Your task to perform on an android device: Turn on the flashlight Image 0: 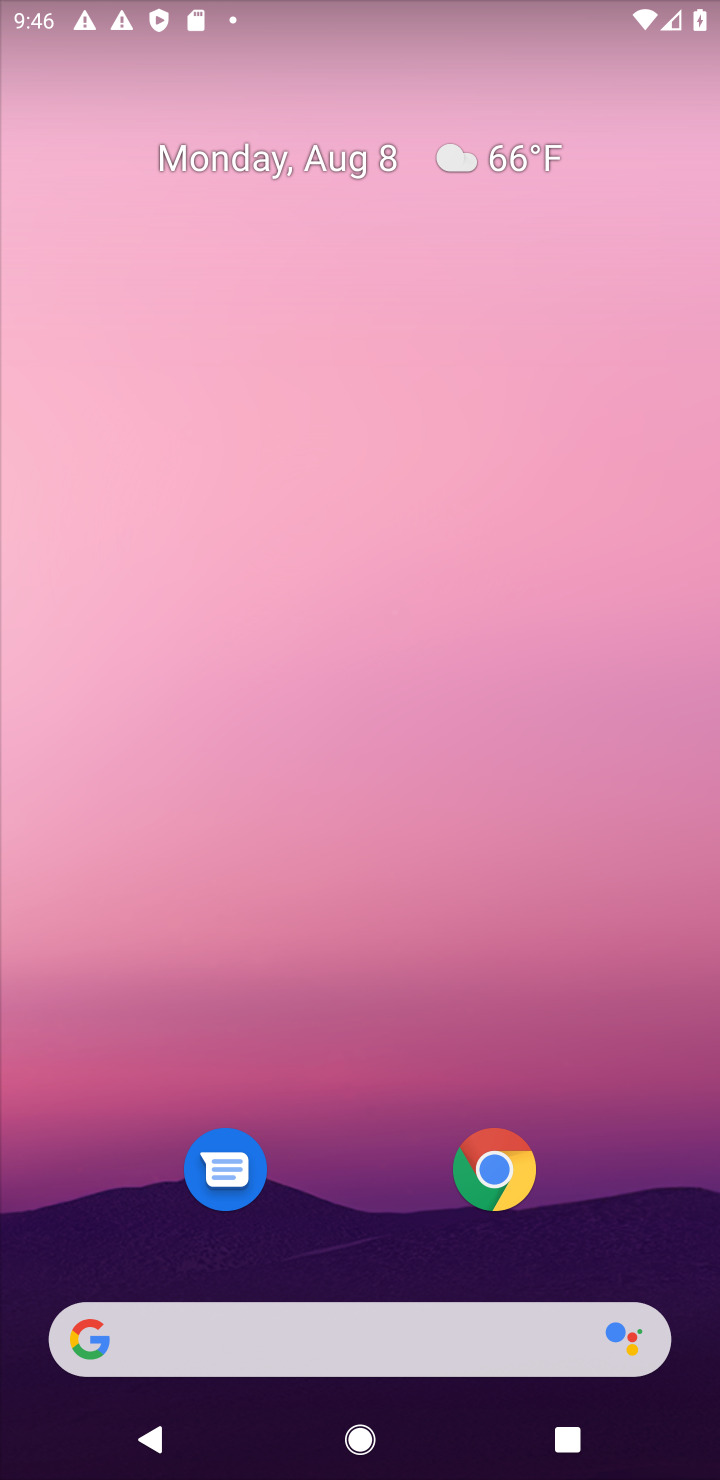
Step 0: drag from (354, 1159) to (496, 196)
Your task to perform on an android device: Turn on the flashlight Image 1: 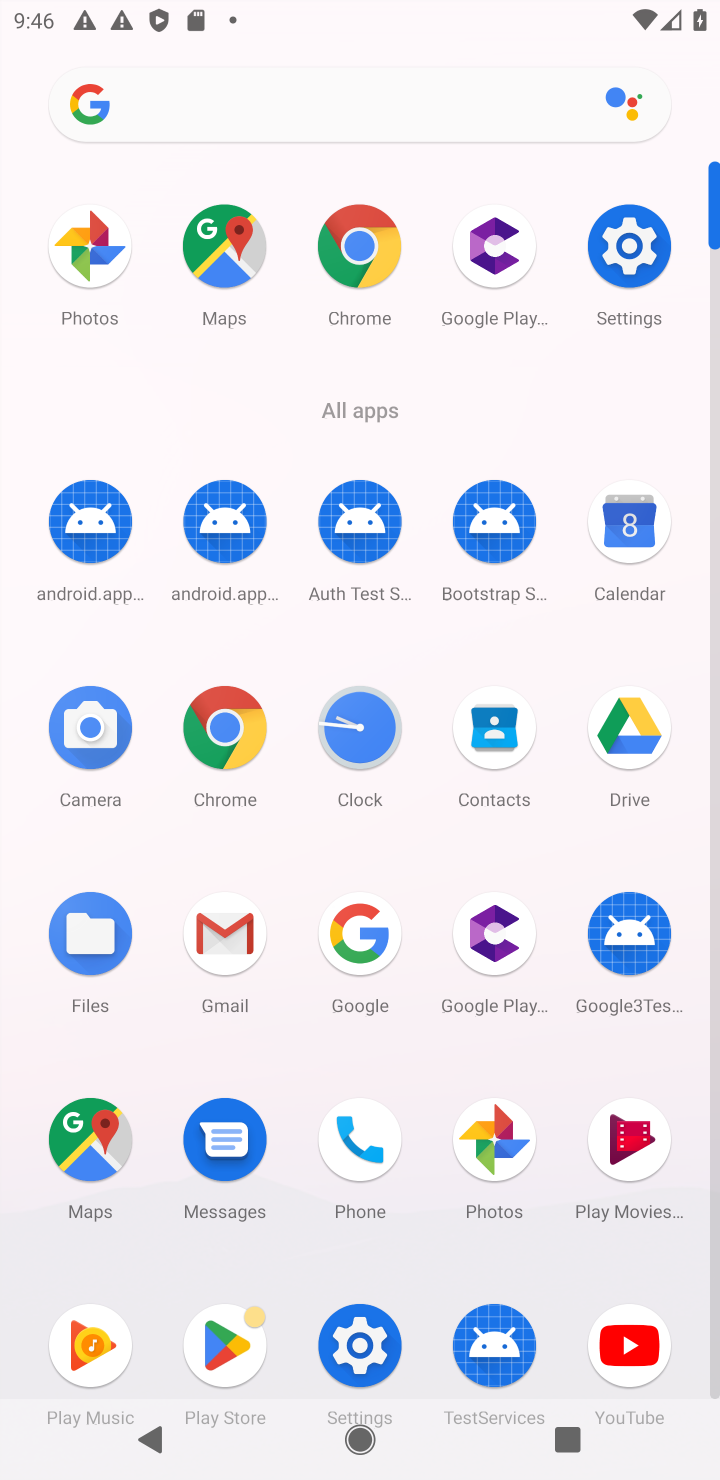
Step 1: click (630, 234)
Your task to perform on an android device: Turn on the flashlight Image 2: 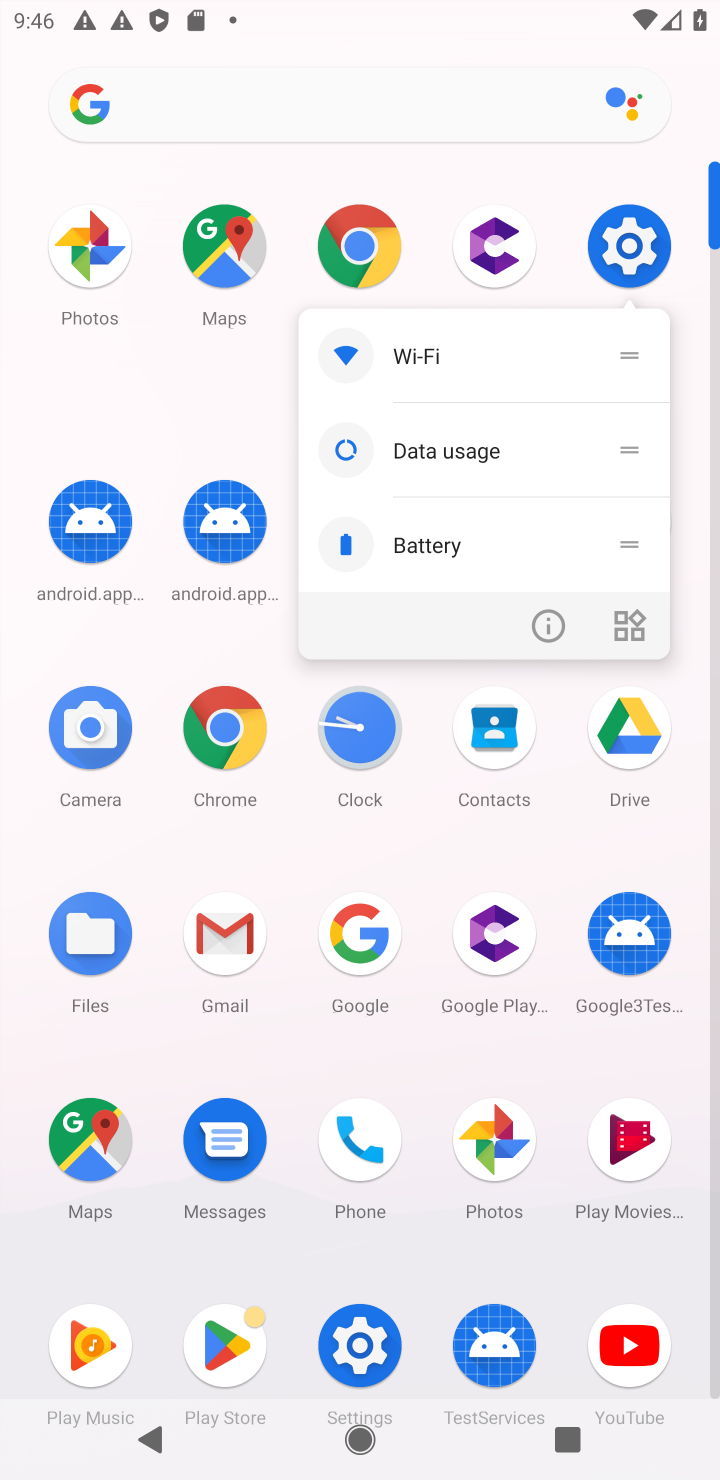
Step 2: click (630, 234)
Your task to perform on an android device: Turn on the flashlight Image 3: 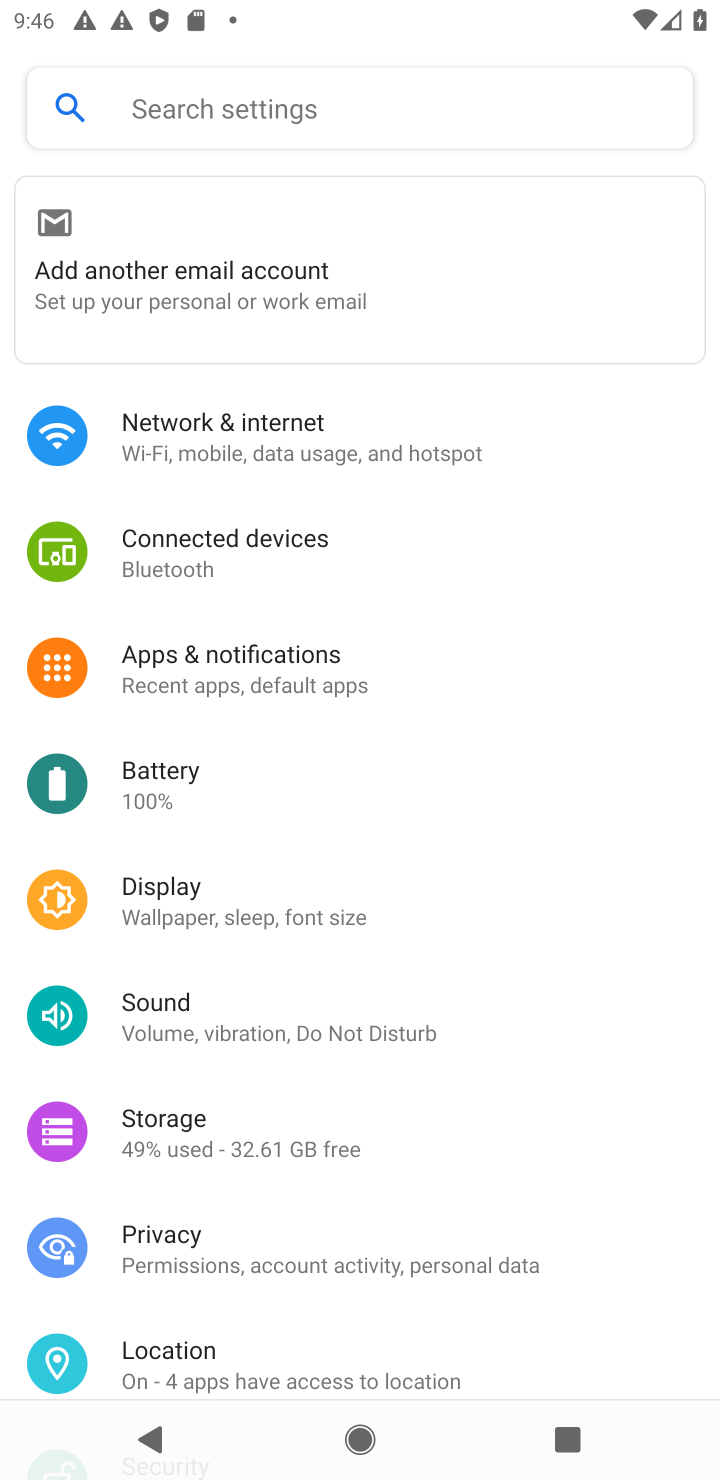
Step 3: click (298, 102)
Your task to perform on an android device: Turn on the flashlight Image 4: 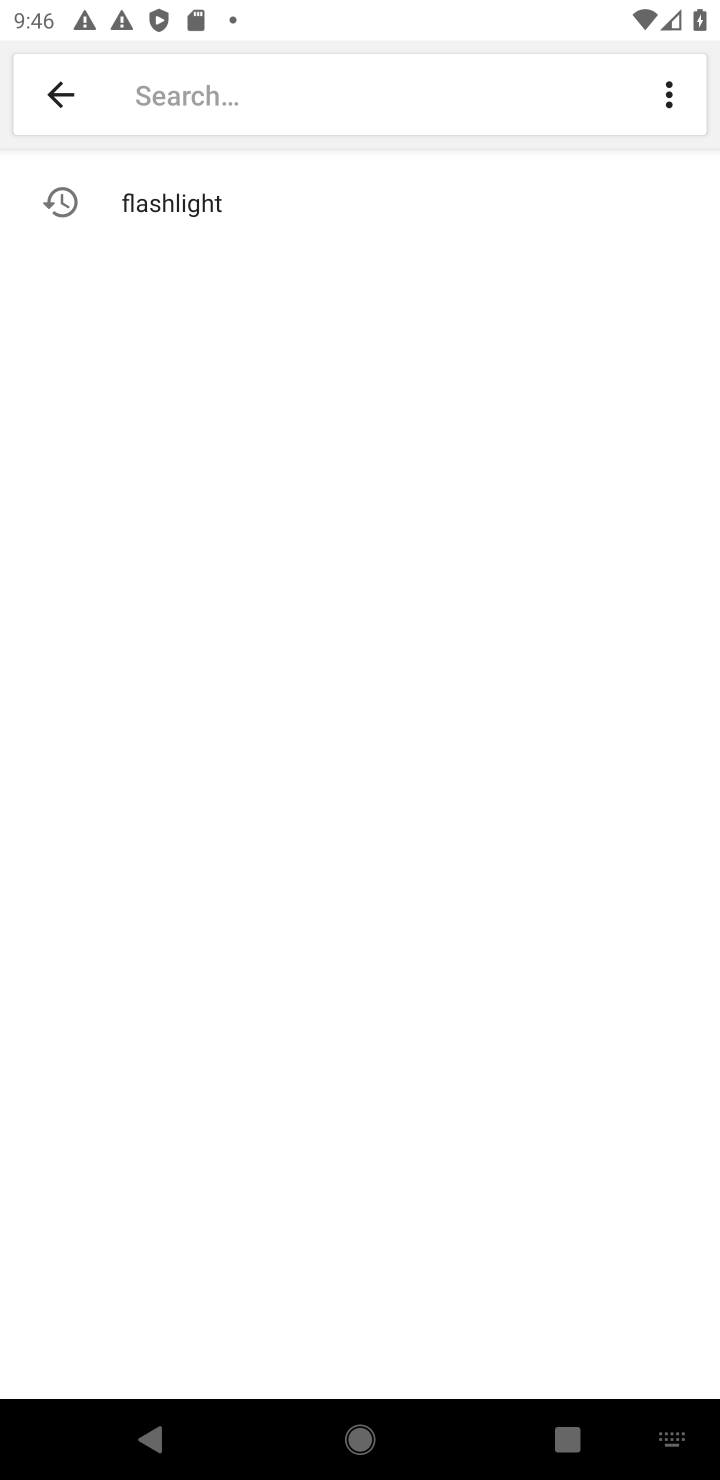
Step 4: type "flashlight"
Your task to perform on an android device: Turn on the flashlight Image 5: 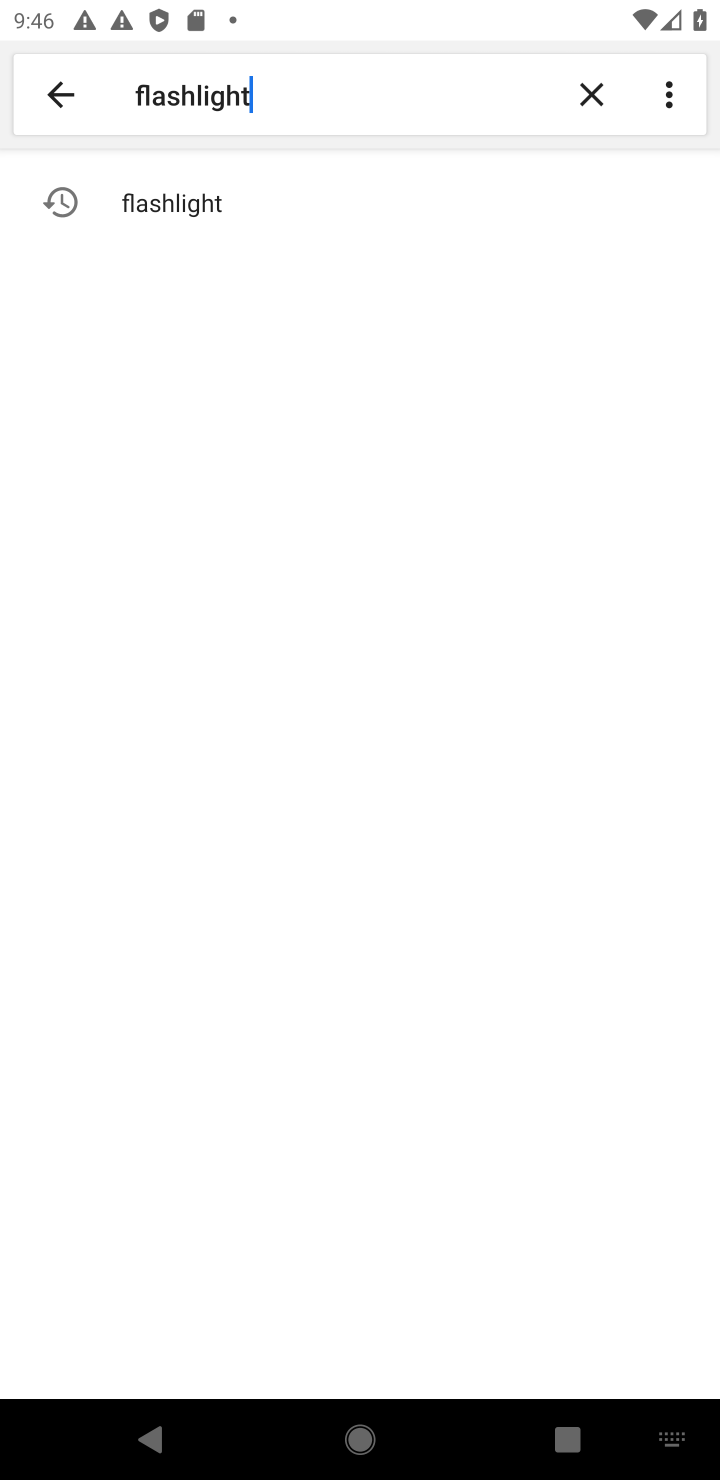
Step 5: click (209, 196)
Your task to perform on an android device: Turn on the flashlight Image 6: 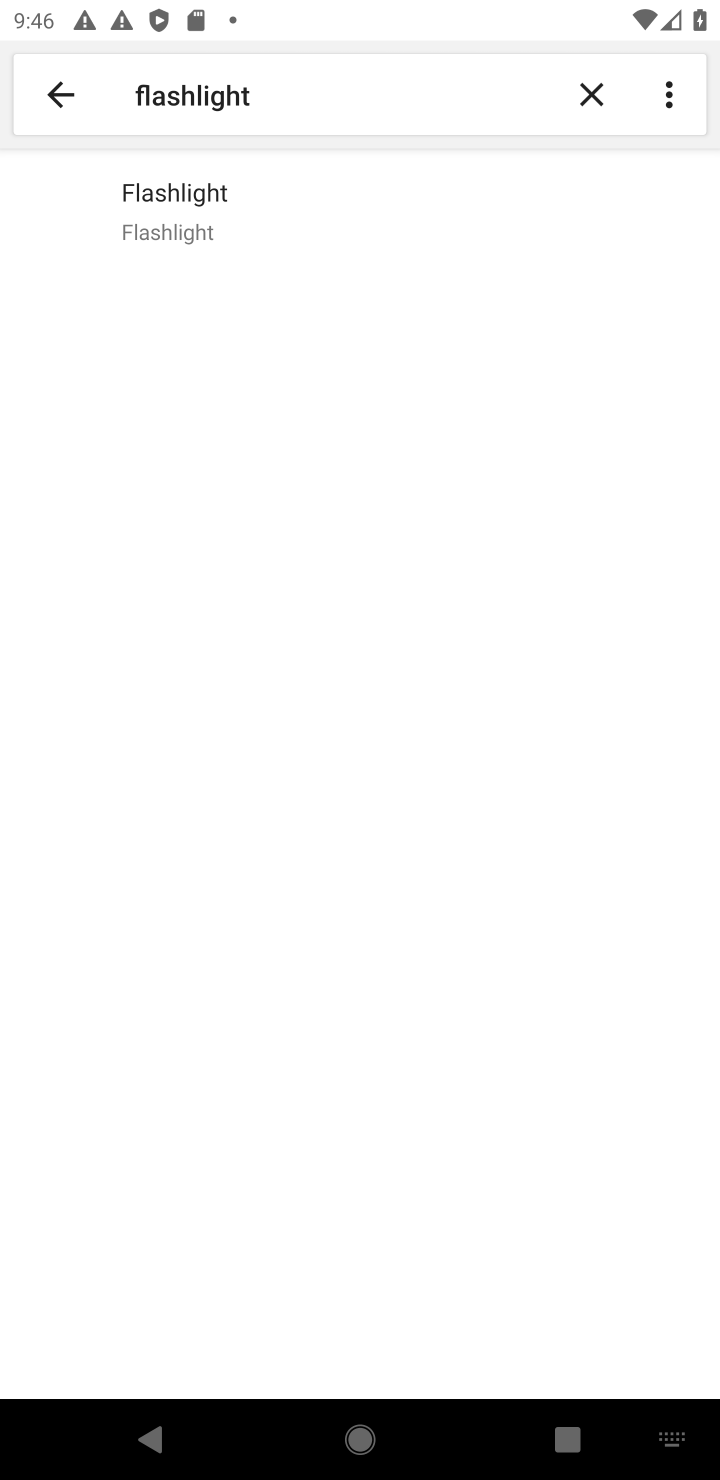
Step 6: click (209, 198)
Your task to perform on an android device: Turn on the flashlight Image 7: 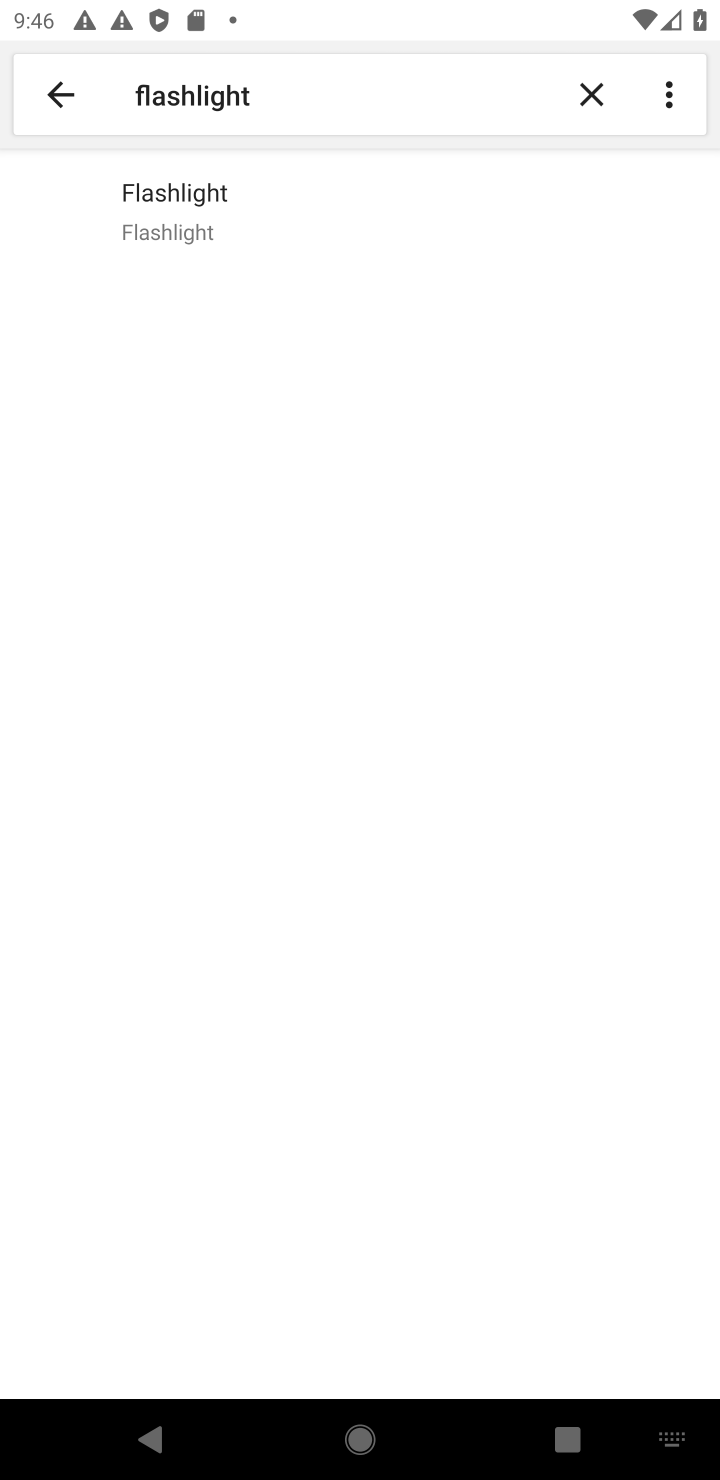
Step 7: task complete